Your task to perform on an android device: turn on showing notifications on the lock screen Image 0: 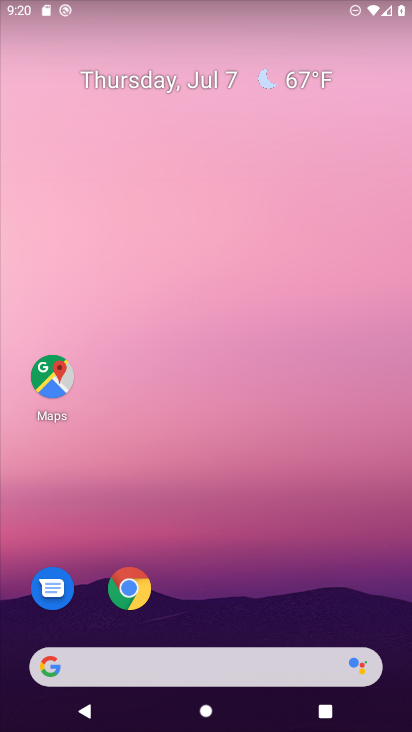
Step 0: drag from (258, 615) to (281, 114)
Your task to perform on an android device: turn on showing notifications on the lock screen Image 1: 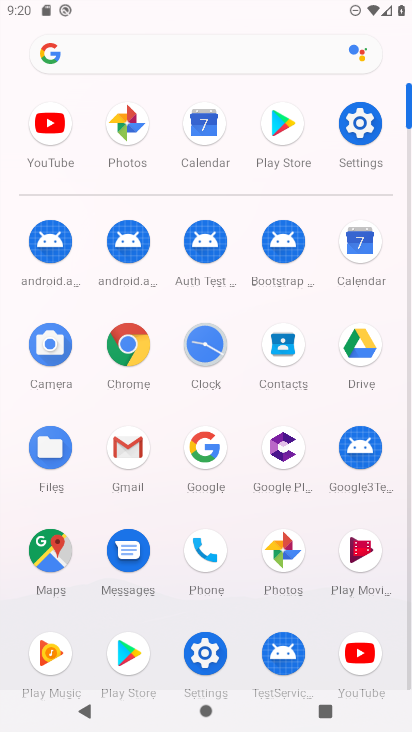
Step 1: click (360, 123)
Your task to perform on an android device: turn on showing notifications on the lock screen Image 2: 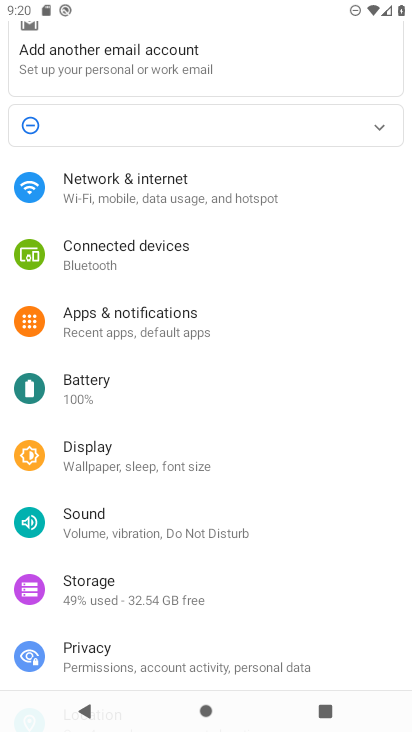
Step 2: click (154, 311)
Your task to perform on an android device: turn on showing notifications on the lock screen Image 3: 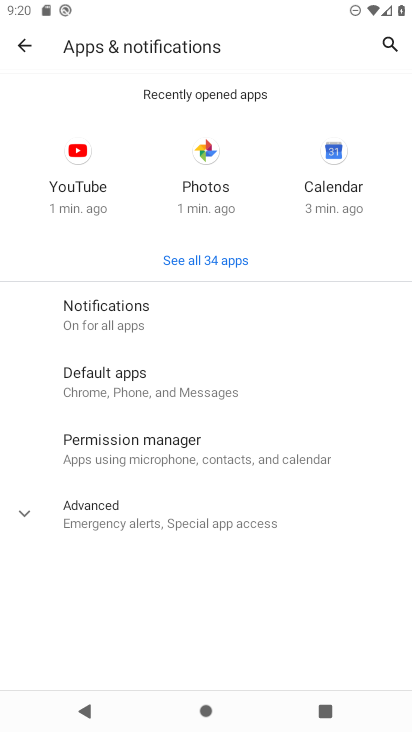
Step 3: click (118, 322)
Your task to perform on an android device: turn on showing notifications on the lock screen Image 4: 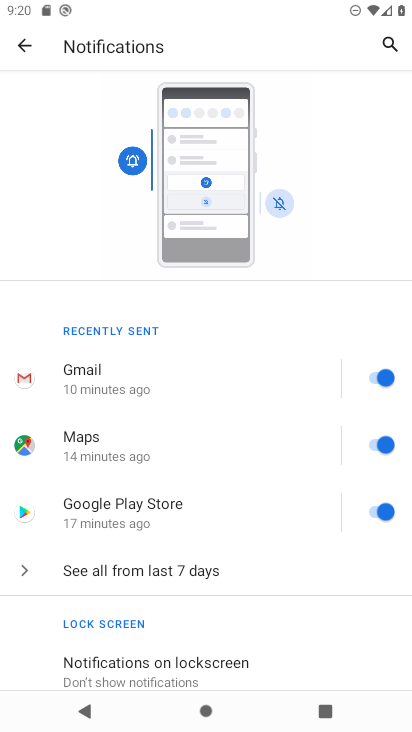
Step 4: click (138, 661)
Your task to perform on an android device: turn on showing notifications on the lock screen Image 5: 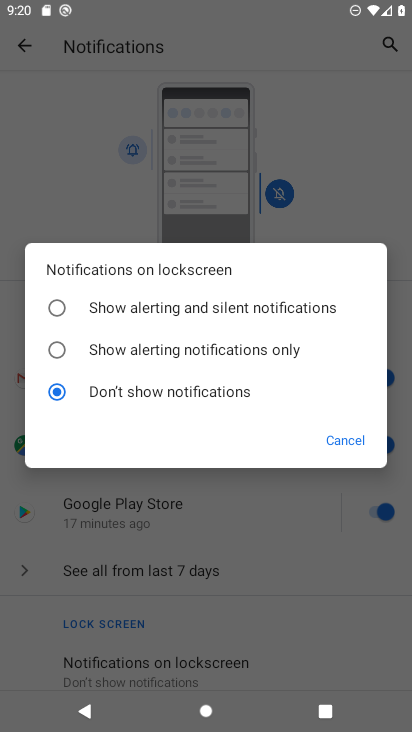
Step 5: click (58, 311)
Your task to perform on an android device: turn on showing notifications on the lock screen Image 6: 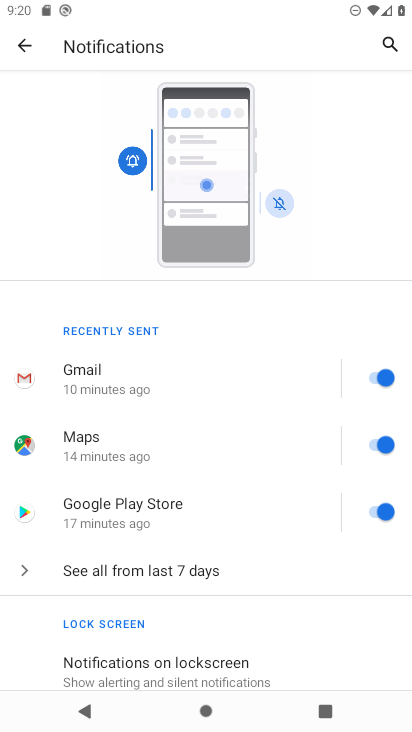
Step 6: task complete